Your task to perform on an android device: Open the calendar app, open the side menu, and click the "Day" option Image 0: 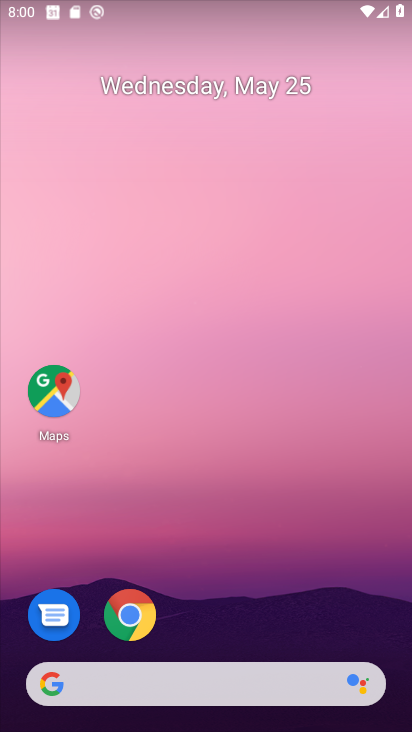
Step 0: drag from (264, 566) to (209, 26)
Your task to perform on an android device: Open the calendar app, open the side menu, and click the "Day" option Image 1: 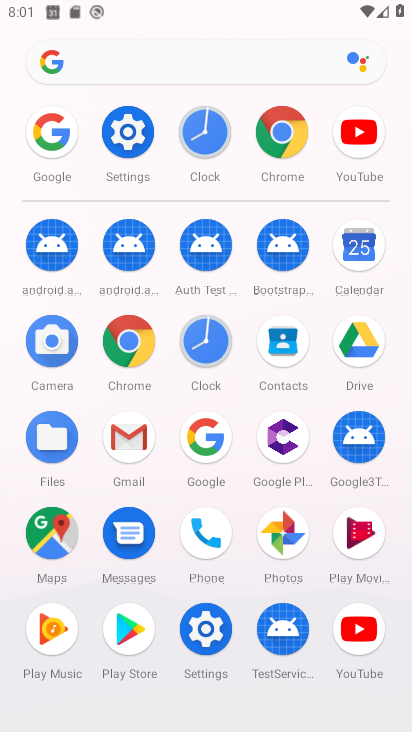
Step 1: drag from (16, 561) to (7, 179)
Your task to perform on an android device: Open the calendar app, open the side menu, and click the "Day" option Image 2: 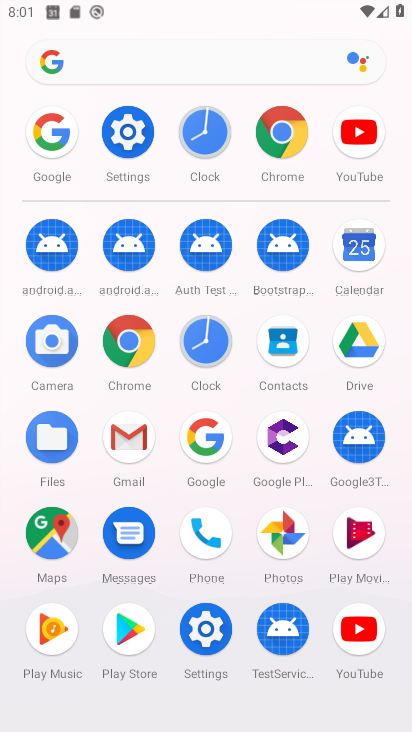
Step 2: click (361, 242)
Your task to perform on an android device: Open the calendar app, open the side menu, and click the "Day" option Image 3: 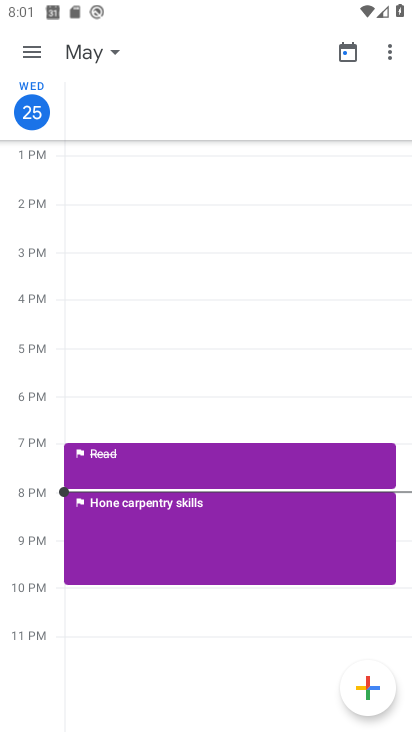
Step 3: task complete